Your task to perform on an android device: open app "Roku - Official Remote Control" Image 0: 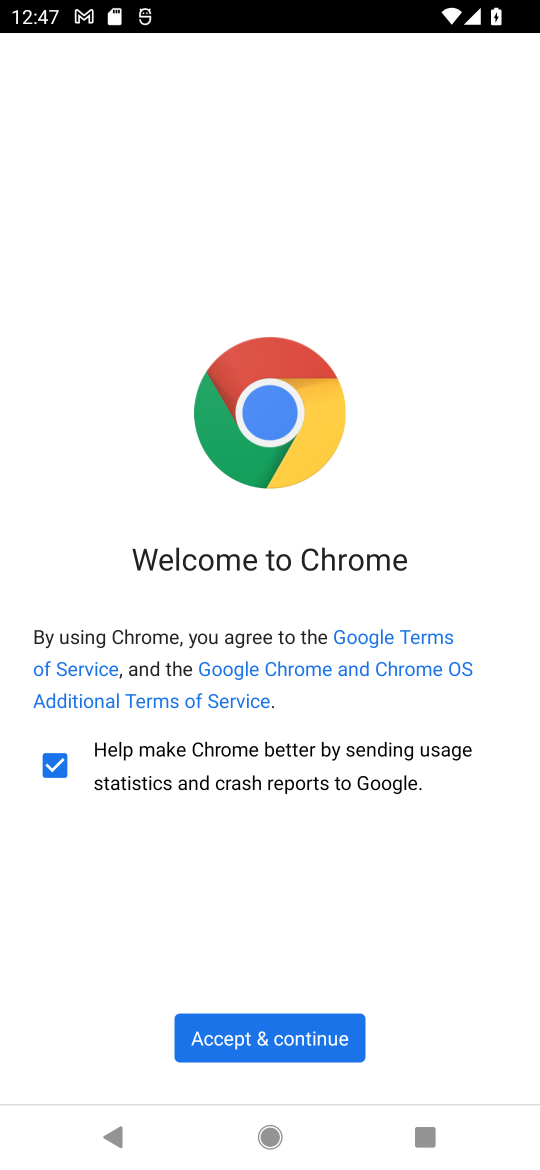
Step 0: press home button
Your task to perform on an android device: open app "Roku - Official Remote Control" Image 1: 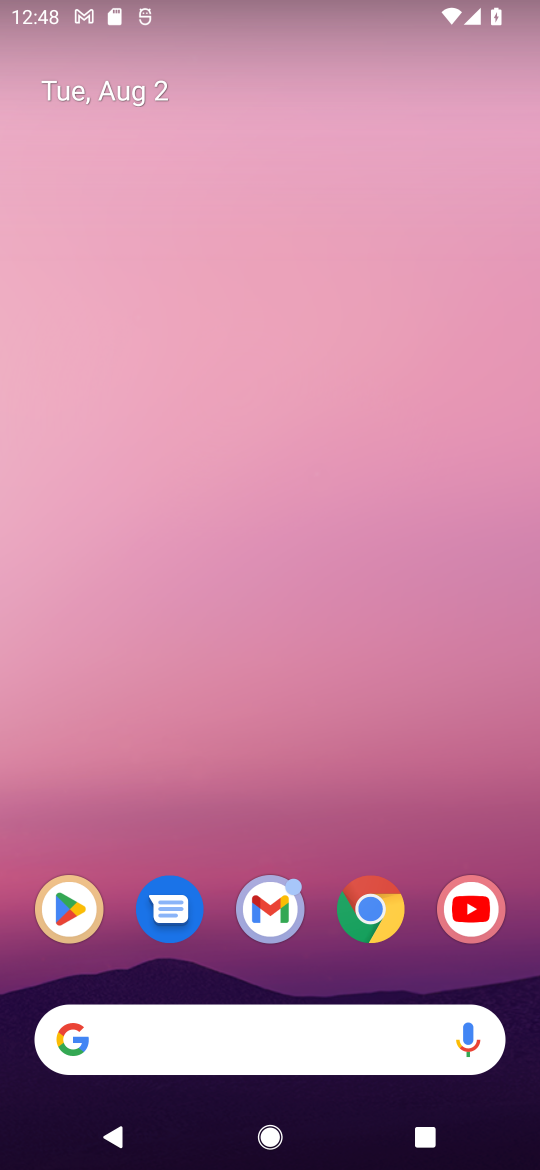
Step 1: click (56, 906)
Your task to perform on an android device: open app "Roku - Official Remote Control" Image 2: 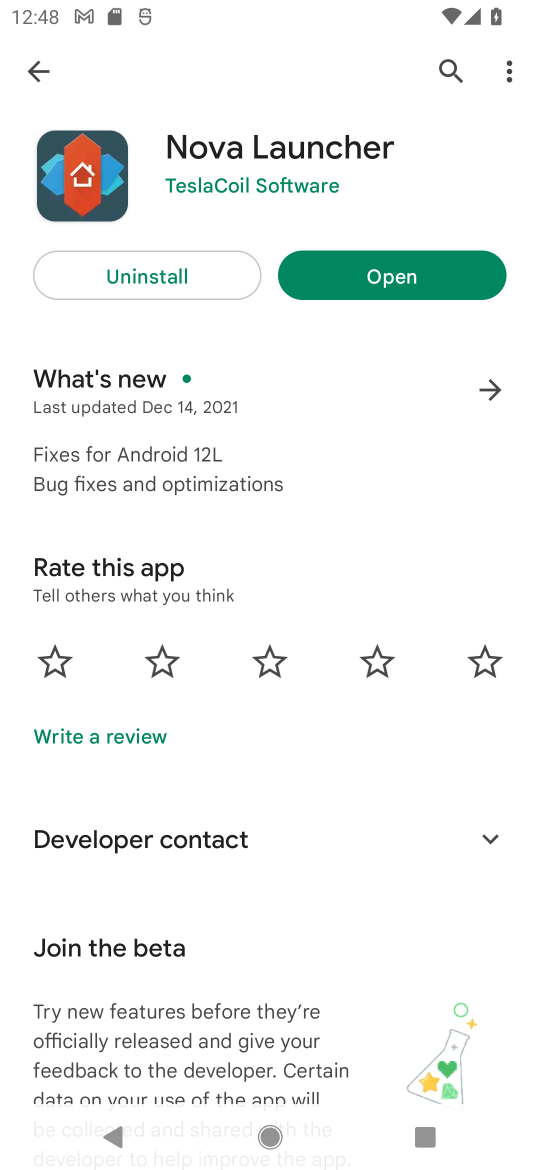
Step 2: click (29, 69)
Your task to perform on an android device: open app "Roku - Official Remote Control" Image 3: 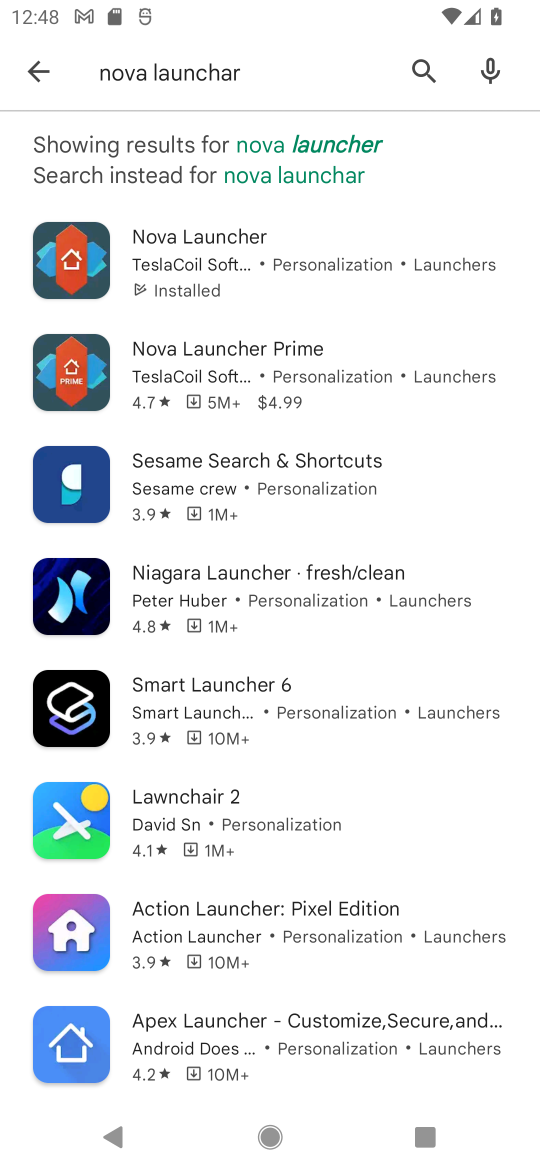
Step 3: click (423, 67)
Your task to perform on an android device: open app "Roku - Official Remote Control" Image 4: 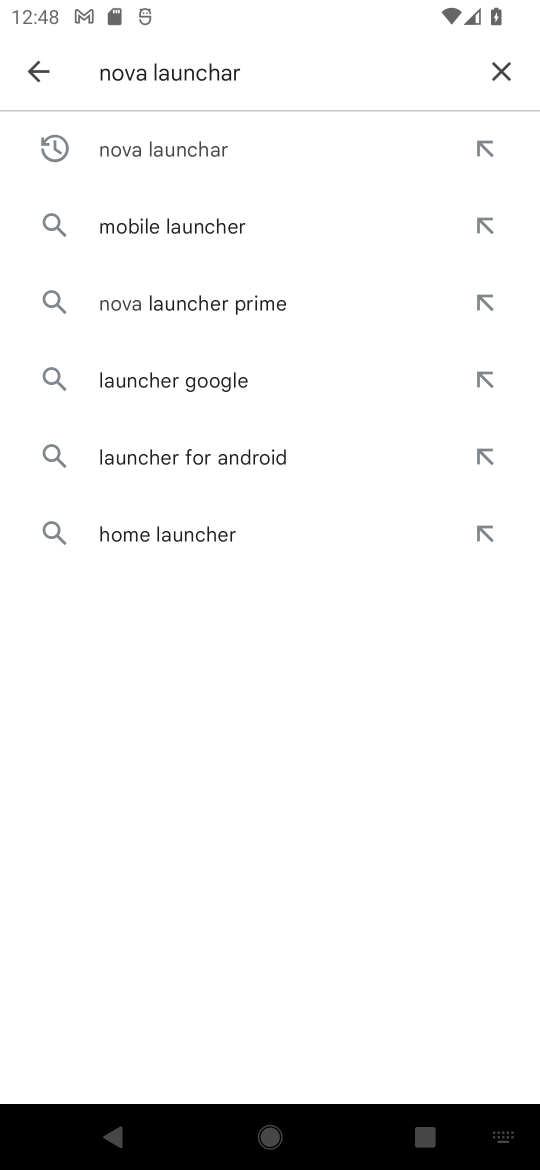
Step 4: click (505, 72)
Your task to perform on an android device: open app "Roku - Official Remote Control" Image 5: 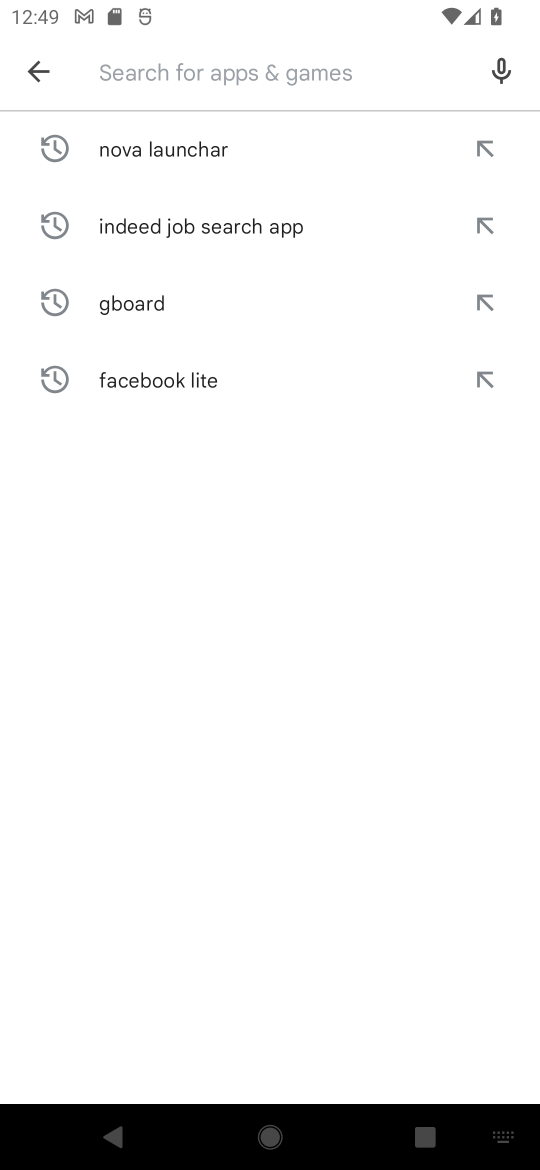
Step 5: type "Roku"
Your task to perform on an android device: open app "Roku - Official Remote Control" Image 6: 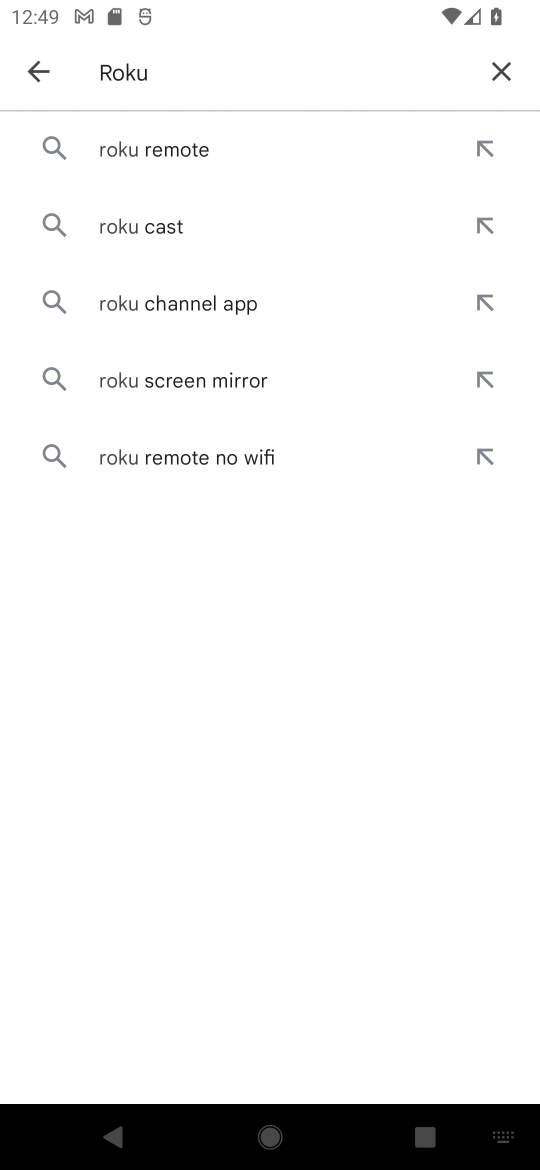
Step 6: click (138, 152)
Your task to perform on an android device: open app "Roku - Official Remote Control" Image 7: 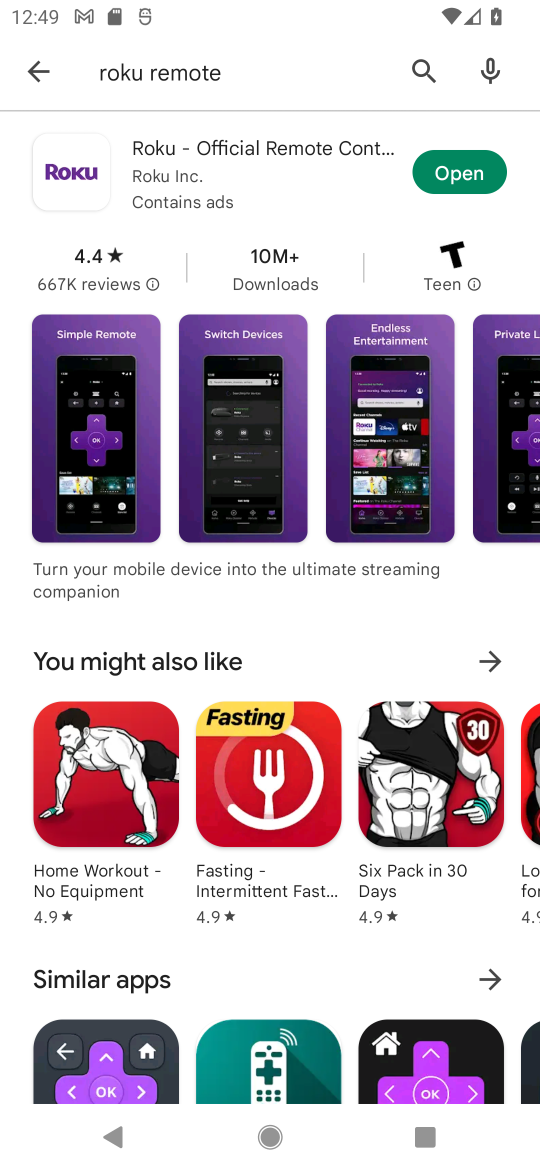
Step 7: click (465, 173)
Your task to perform on an android device: open app "Roku - Official Remote Control" Image 8: 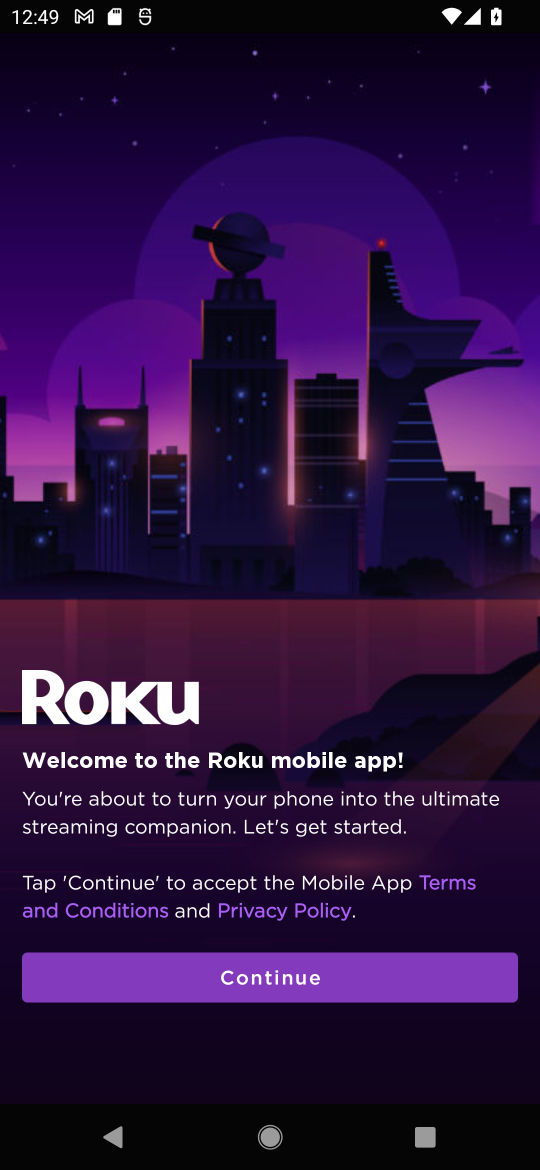
Step 8: task complete